Your task to perform on an android device: Open Youtube and go to "Your channel" Image 0: 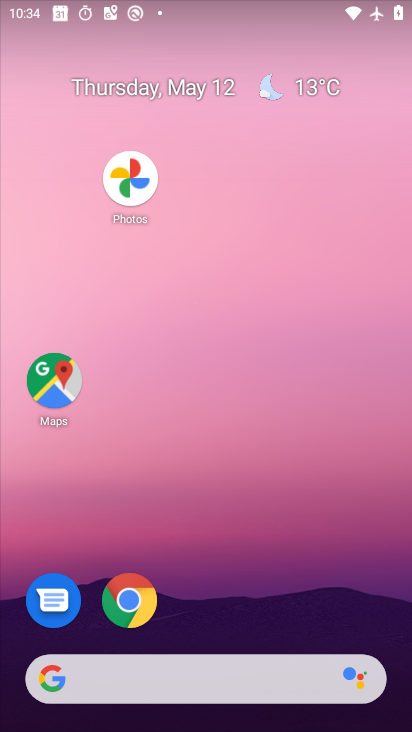
Step 0: drag from (332, 592) to (171, 29)
Your task to perform on an android device: Open Youtube and go to "Your channel" Image 1: 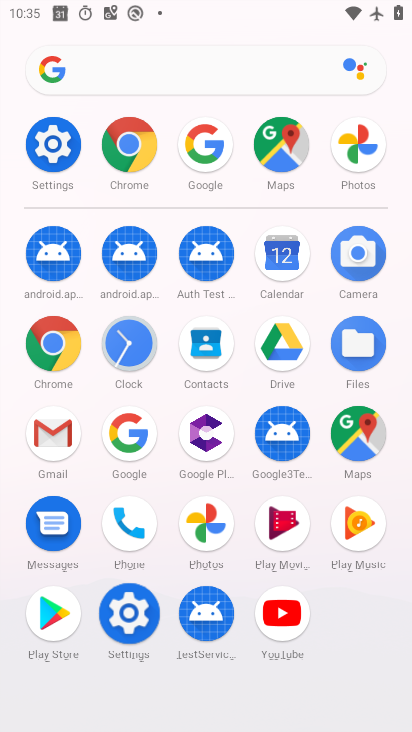
Step 1: click (273, 610)
Your task to perform on an android device: Open Youtube and go to "Your channel" Image 2: 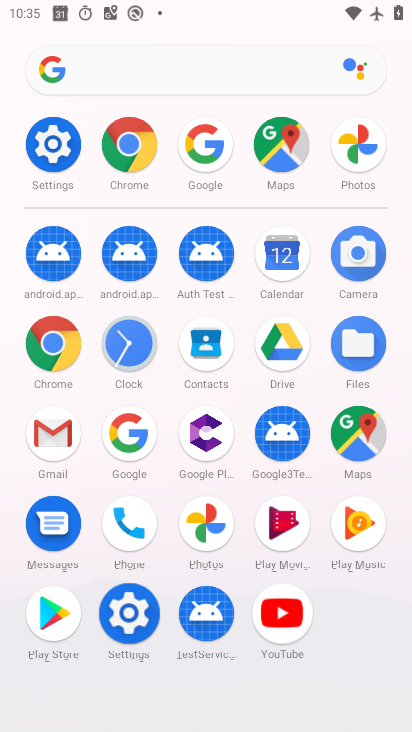
Step 2: click (279, 613)
Your task to perform on an android device: Open Youtube and go to "Your channel" Image 3: 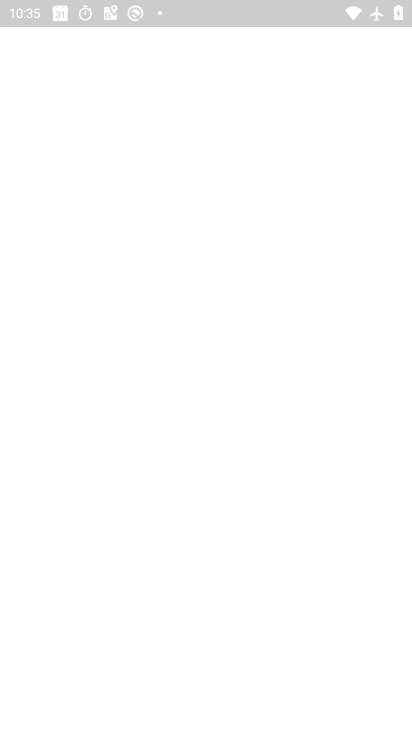
Step 3: click (279, 613)
Your task to perform on an android device: Open Youtube and go to "Your channel" Image 4: 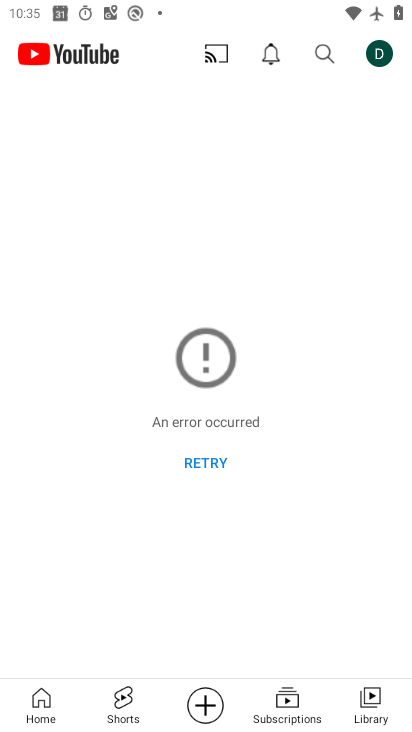
Step 4: task complete